Your task to perform on an android device: What's the weather today? Image 0: 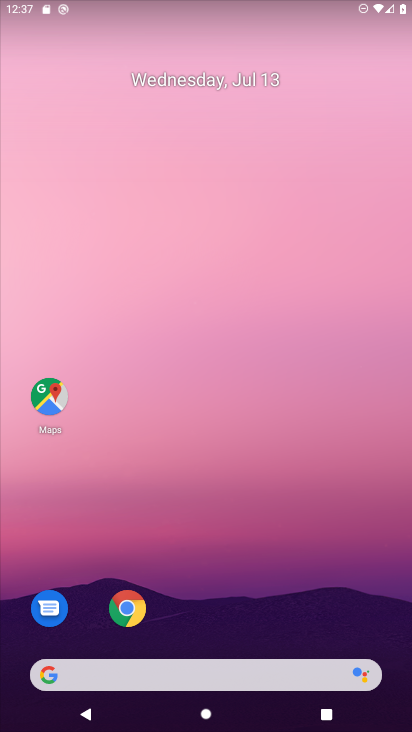
Step 0: click (168, 668)
Your task to perform on an android device: What's the weather today? Image 1: 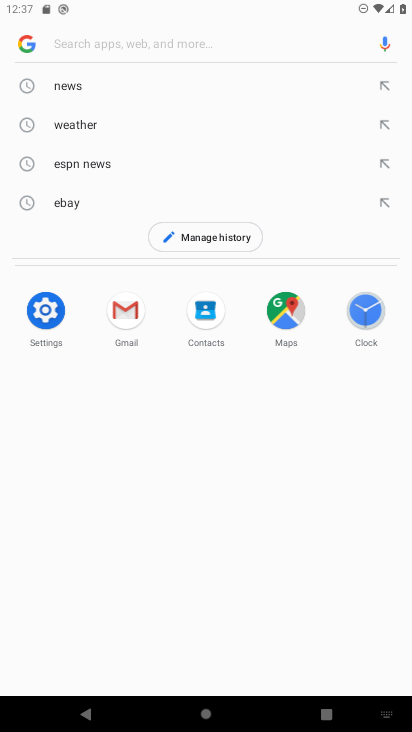
Step 1: click (76, 127)
Your task to perform on an android device: What's the weather today? Image 2: 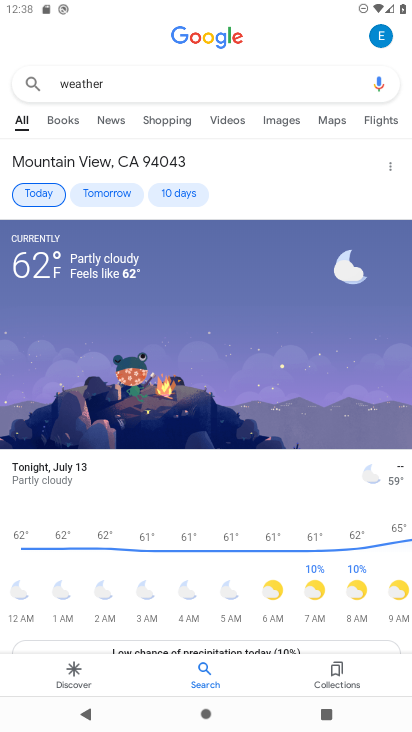
Step 2: task complete